Your task to perform on an android device: Go to Yahoo.com Image 0: 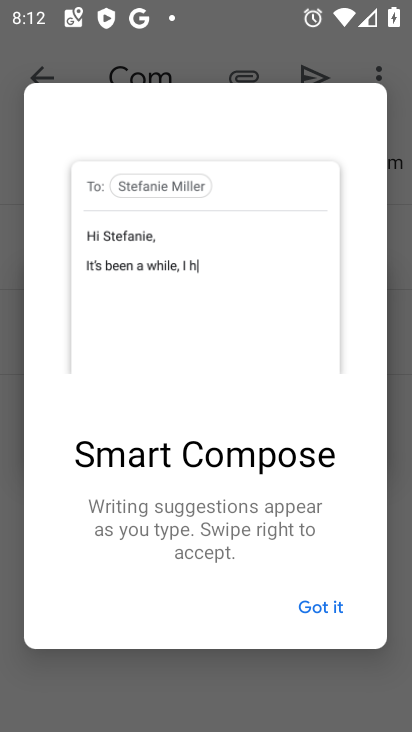
Step 0: press home button
Your task to perform on an android device: Go to Yahoo.com Image 1: 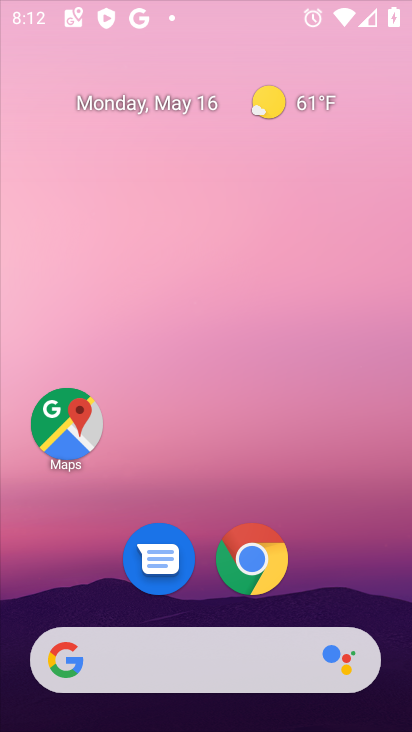
Step 1: drag from (361, 526) to (370, 173)
Your task to perform on an android device: Go to Yahoo.com Image 2: 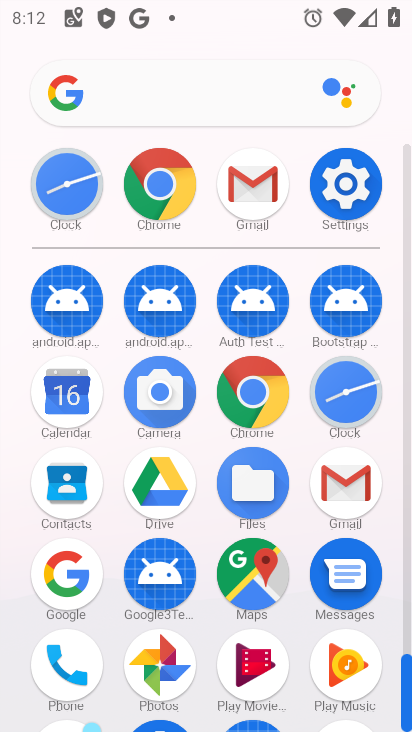
Step 2: click (229, 422)
Your task to perform on an android device: Go to Yahoo.com Image 3: 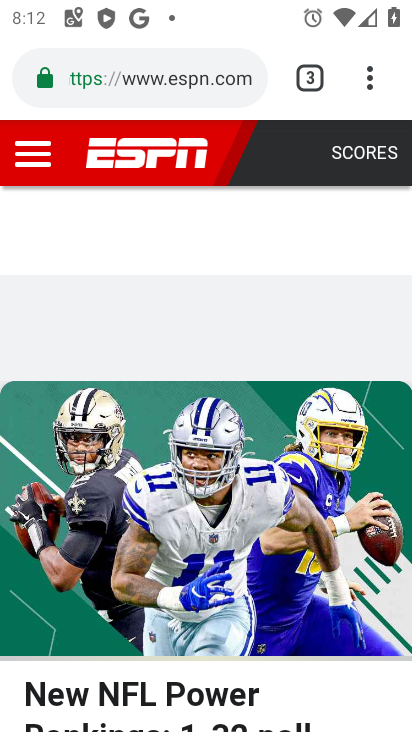
Step 3: click (190, 80)
Your task to perform on an android device: Go to Yahoo.com Image 4: 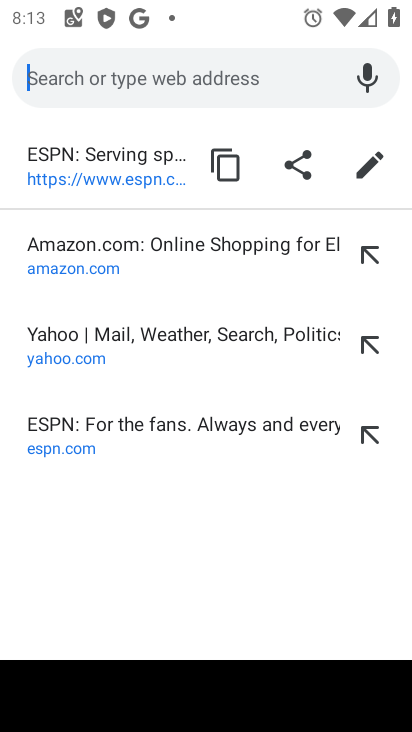
Step 4: click (136, 315)
Your task to perform on an android device: Go to Yahoo.com Image 5: 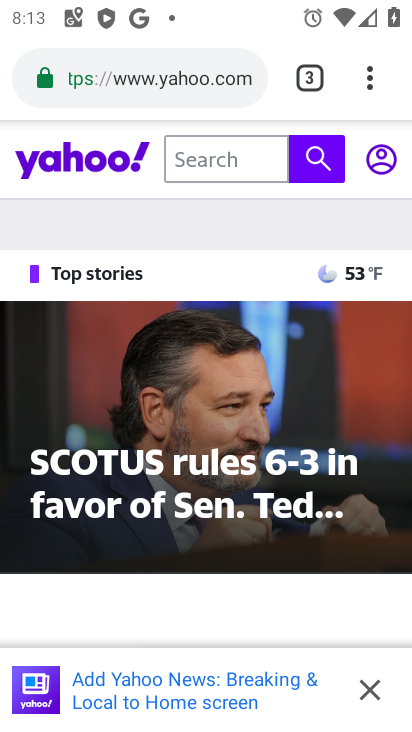
Step 5: task complete